Your task to perform on an android device: toggle sleep mode Image 0: 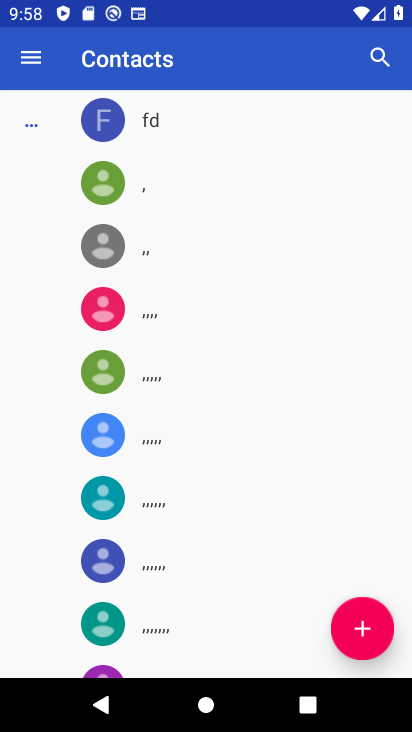
Step 0: press back button
Your task to perform on an android device: toggle sleep mode Image 1: 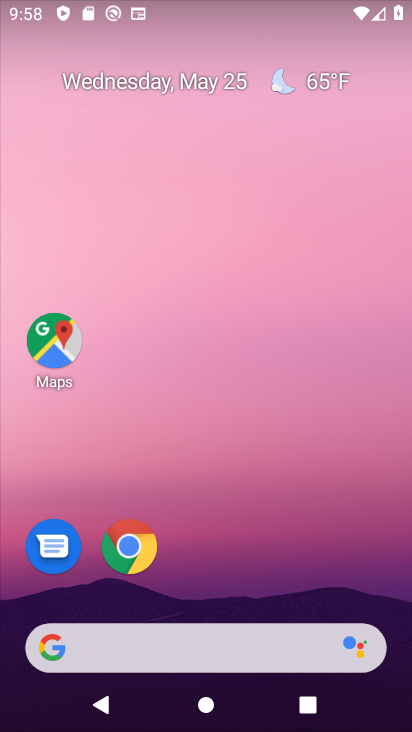
Step 1: drag from (219, 577) to (223, 0)
Your task to perform on an android device: toggle sleep mode Image 2: 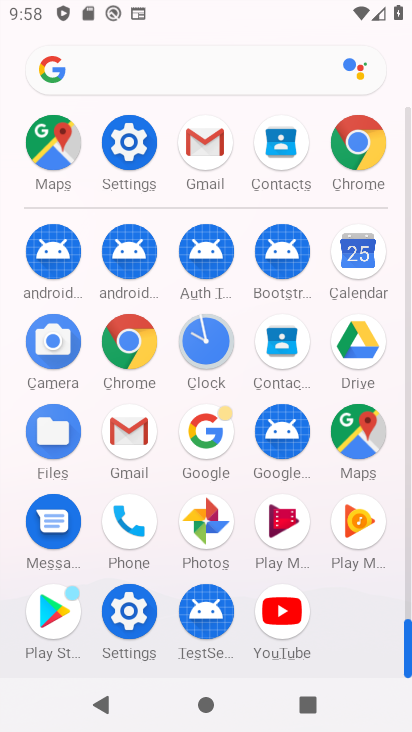
Step 2: click (127, 611)
Your task to perform on an android device: toggle sleep mode Image 3: 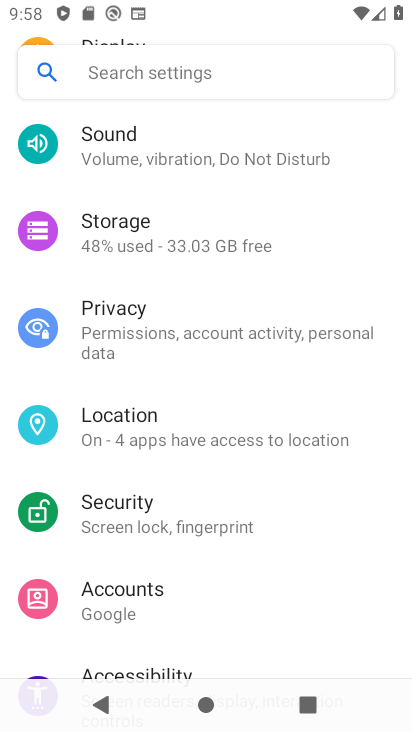
Step 3: drag from (277, 198) to (249, 629)
Your task to perform on an android device: toggle sleep mode Image 4: 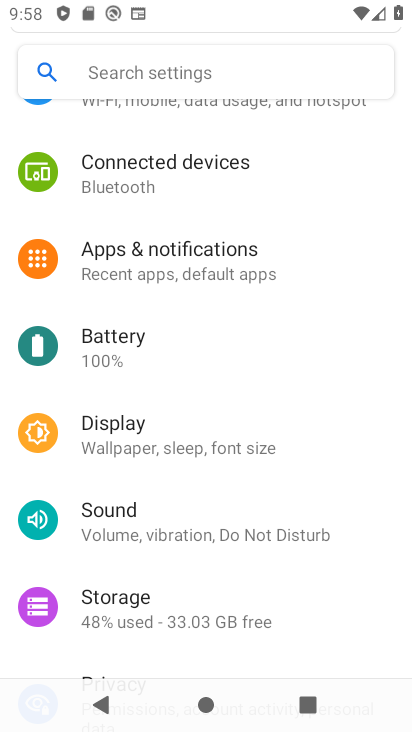
Step 4: drag from (302, 195) to (267, 645)
Your task to perform on an android device: toggle sleep mode Image 5: 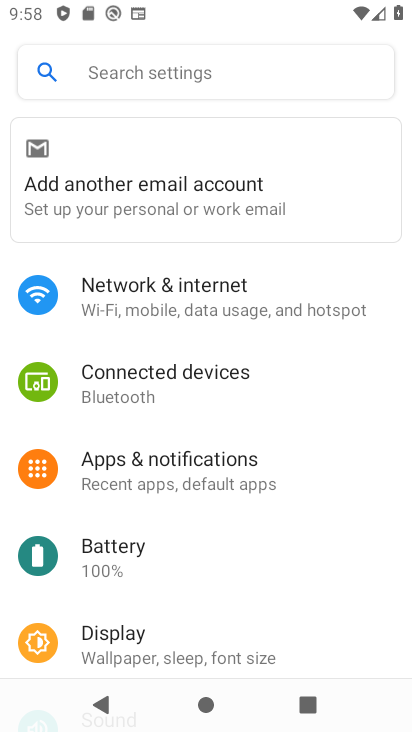
Step 5: click (258, 316)
Your task to perform on an android device: toggle sleep mode Image 6: 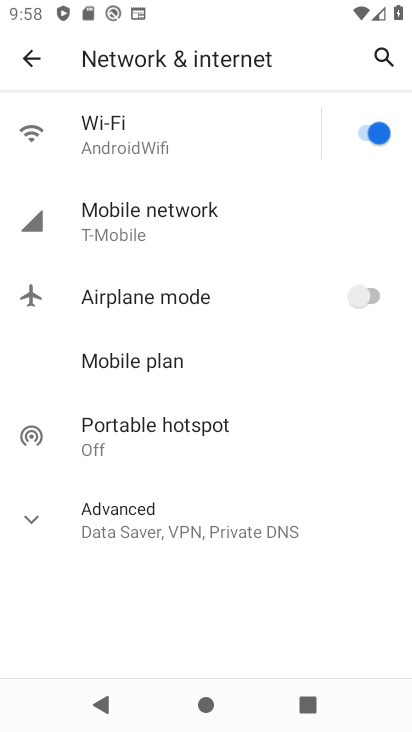
Step 6: click (30, 53)
Your task to perform on an android device: toggle sleep mode Image 7: 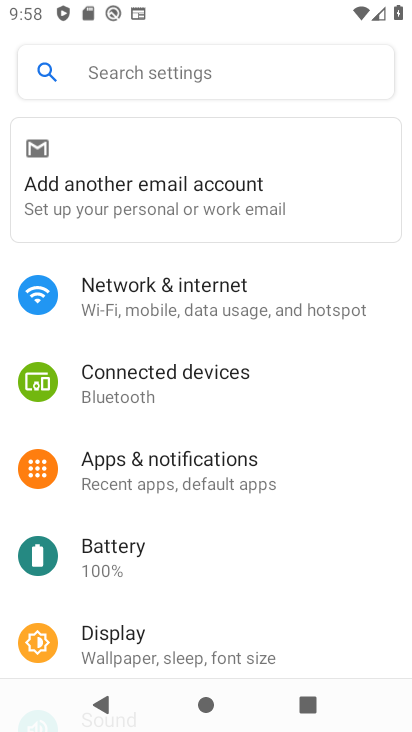
Step 7: drag from (276, 629) to (306, 241)
Your task to perform on an android device: toggle sleep mode Image 8: 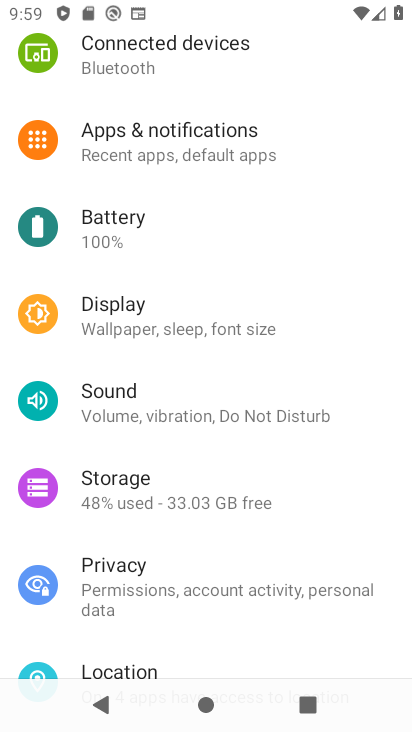
Step 8: click (229, 355)
Your task to perform on an android device: toggle sleep mode Image 9: 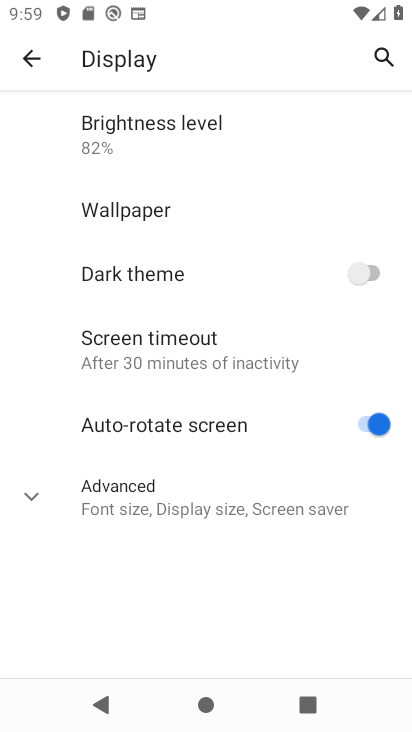
Step 9: click (49, 485)
Your task to perform on an android device: toggle sleep mode Image 10: 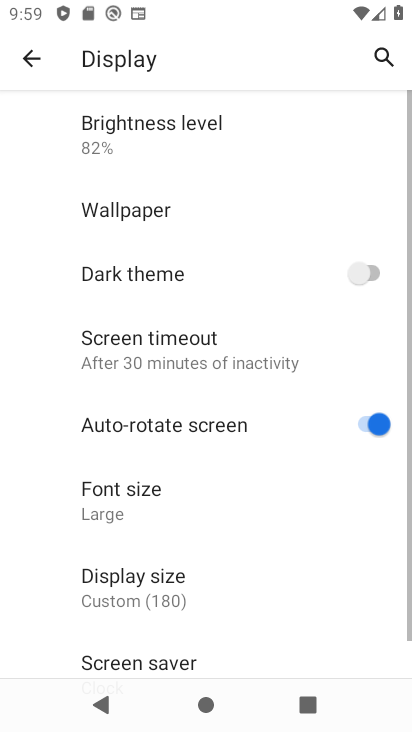
Step 10: task complete